Your task to perform on an android device: Open calendar and show me the first week of next month Image 0: 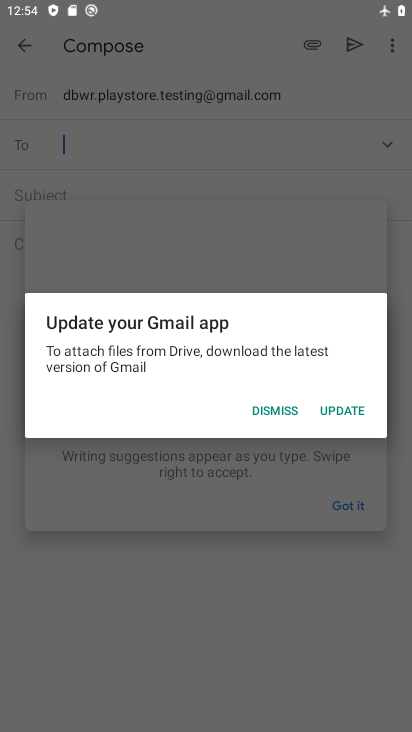
Step 0: press home button
Your task to perform on an android device: Open calendar and show me the first week of next month Image 1: 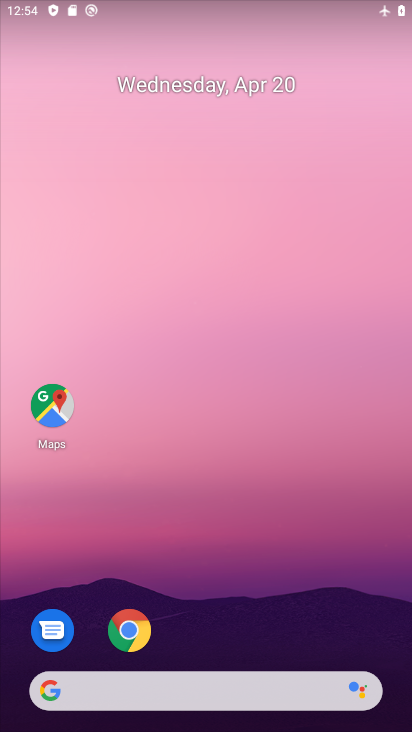
Step 1: drag from (253, 631) to (278, 286)
Your task to perform on an android device: Open calendar and show me the first week of next month Image 2: 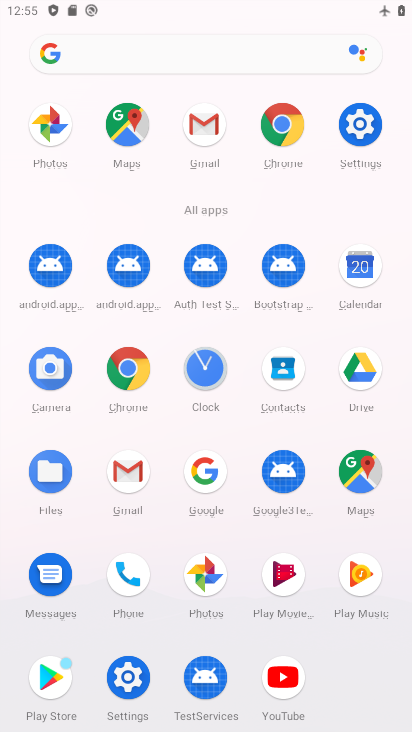
Step 2: click (357, 274)
Your task to perform on an android device: Open calendar and show me the first week of next month Image 3: 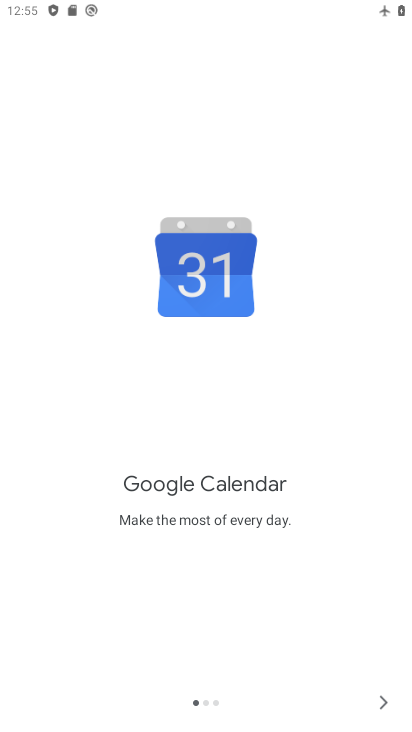
Step 3: click (381, 693)
Your task to perform on an android device: Open calendar and show me the first week of next month Image 4: 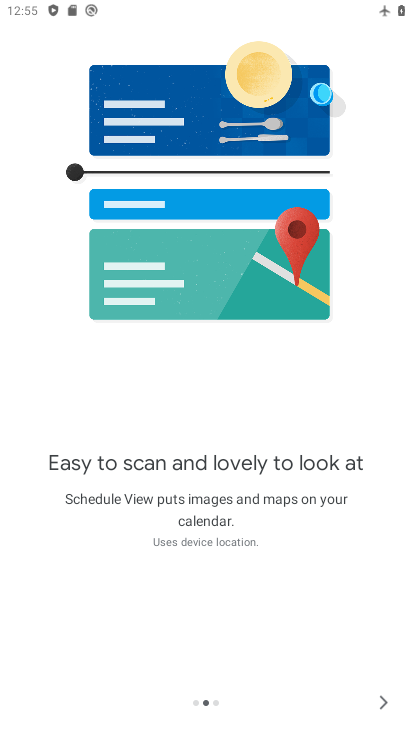
Step 4: click (384, 702)
Your task to perform on an android device: Open calendar and show me the first week of next month Image 5: 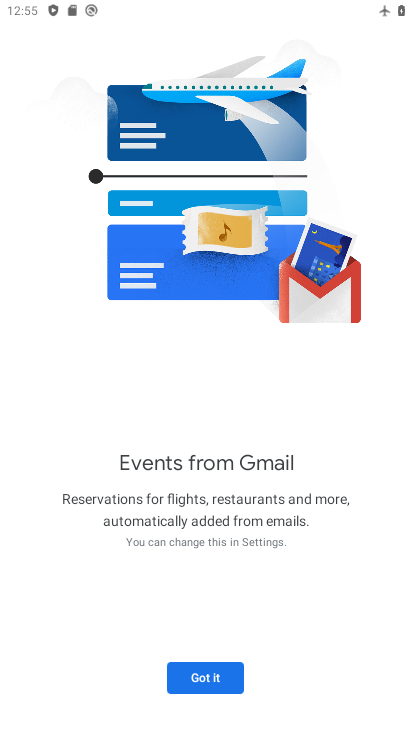
Step 5: click (198, 668)
Your task to perform on an android device: Open calendar and show me the first week of next month Image 6: 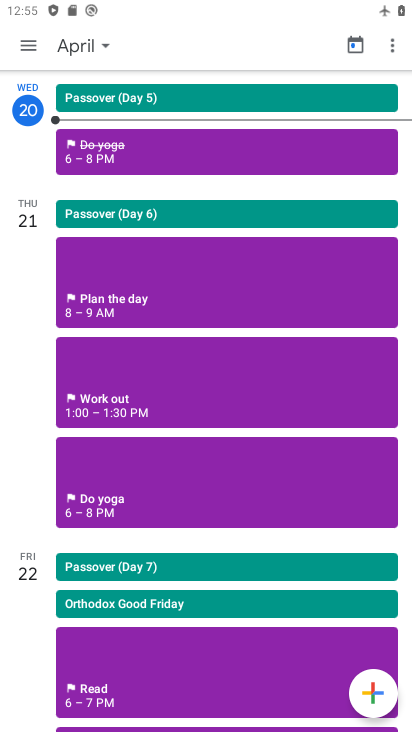
Step 6: click (86, 41)
Your task to perform on an android device: Open calendar and show me the first week of next month Image 7: 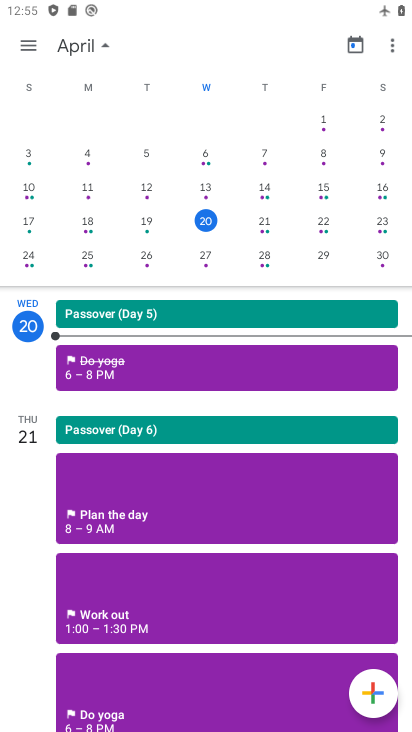
Step 7: drag from (362, 189) to (31, 192)
Your task to perform on an android device: Open calendar and show me the first week of next month Image 8: 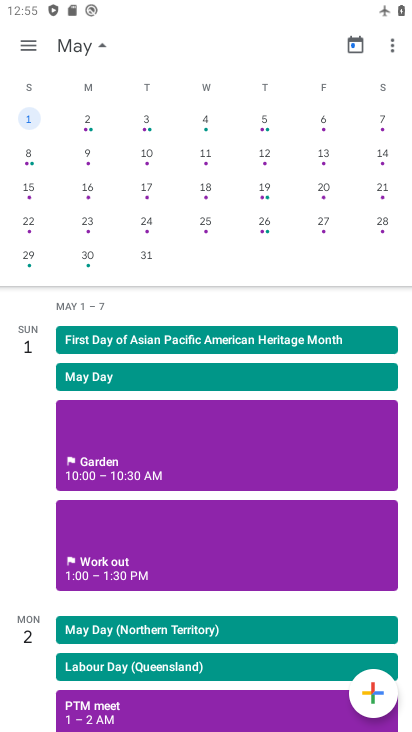
Step 8: click (31, 44)
Your task to perform on an android device: Open calendar and show me the first week of next month Image 9: 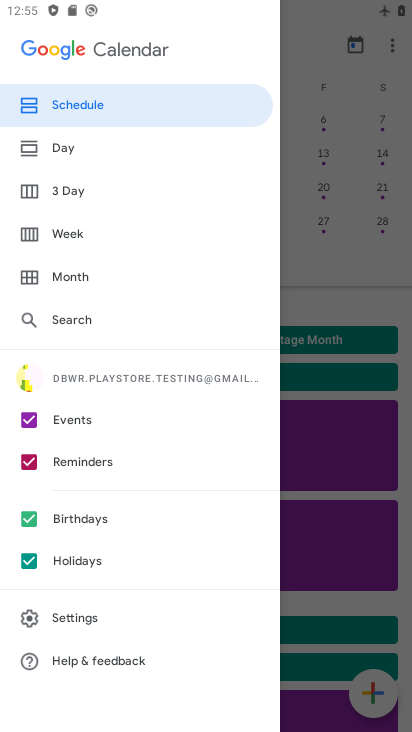
Step 9: click (66, 227)
Your task to perform on an android device: Open calendar and show me the first week of next month Image 10: 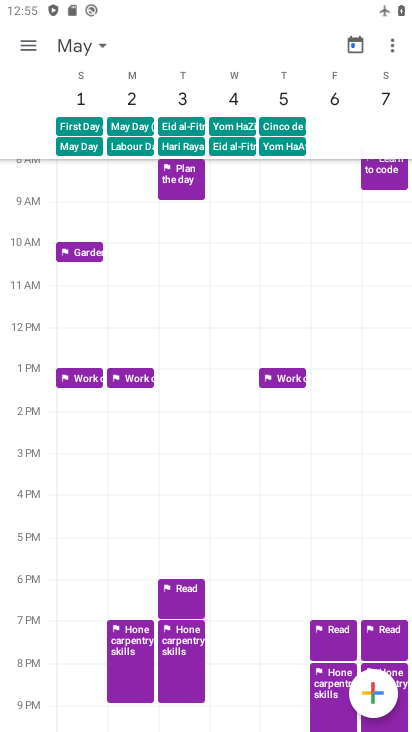
Step 10: task complete